Your task to perform on an android device: View the shopping cart on ebay.com. Image 0: 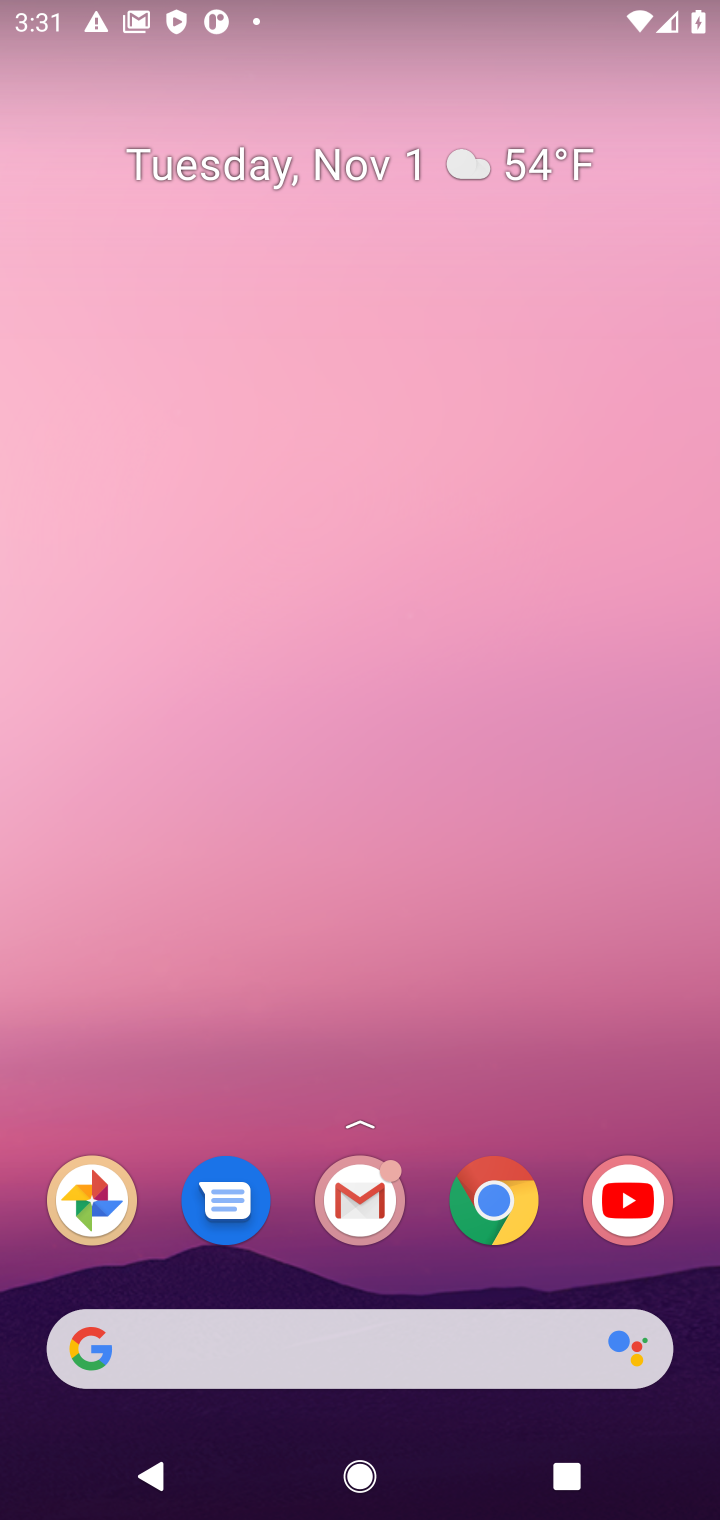
Step 0: click (92, 1349)
Your task to perform on an android device: View the shopping cart on ebay.com. Image 1: 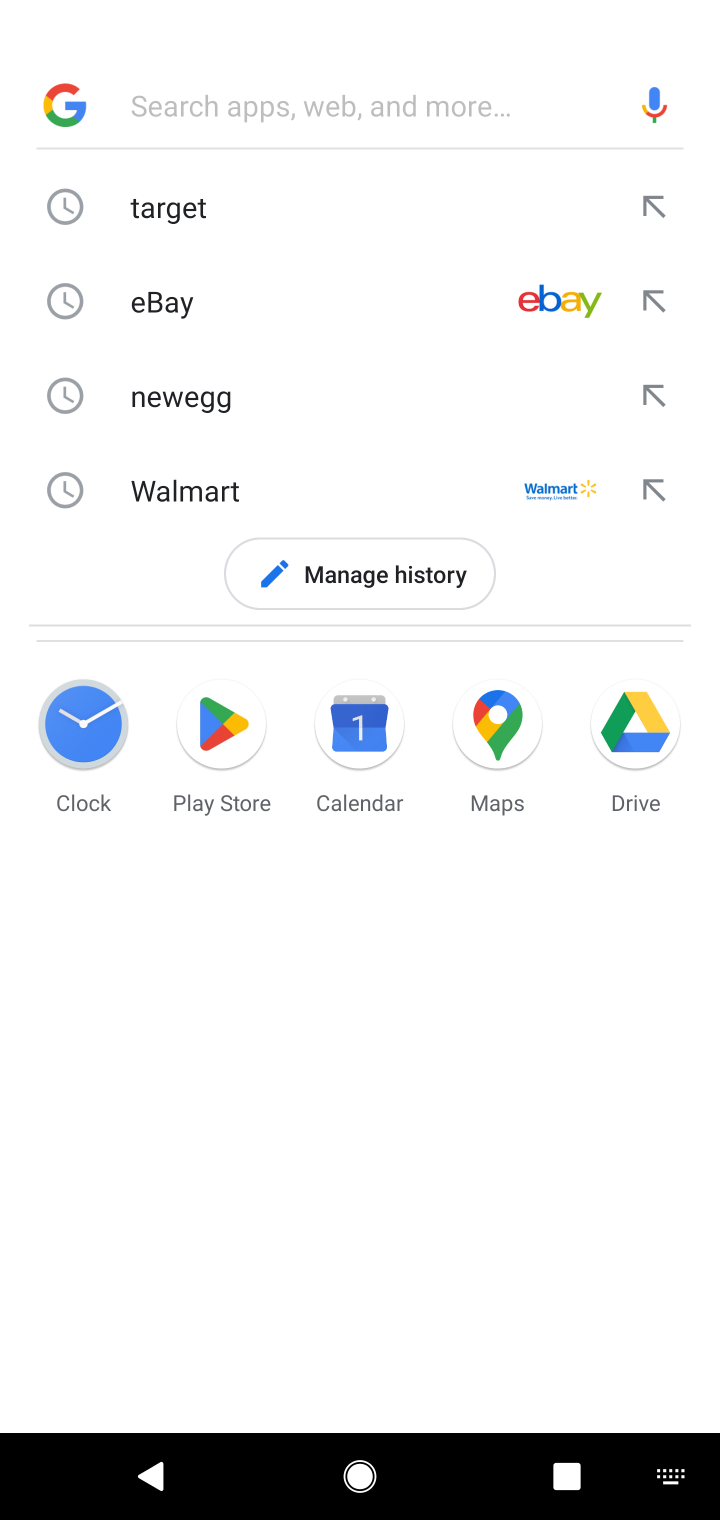
Step 1: click (298, 298)
Your task to perform on an android device: View the shopping cart on ebay.com. Image 2: 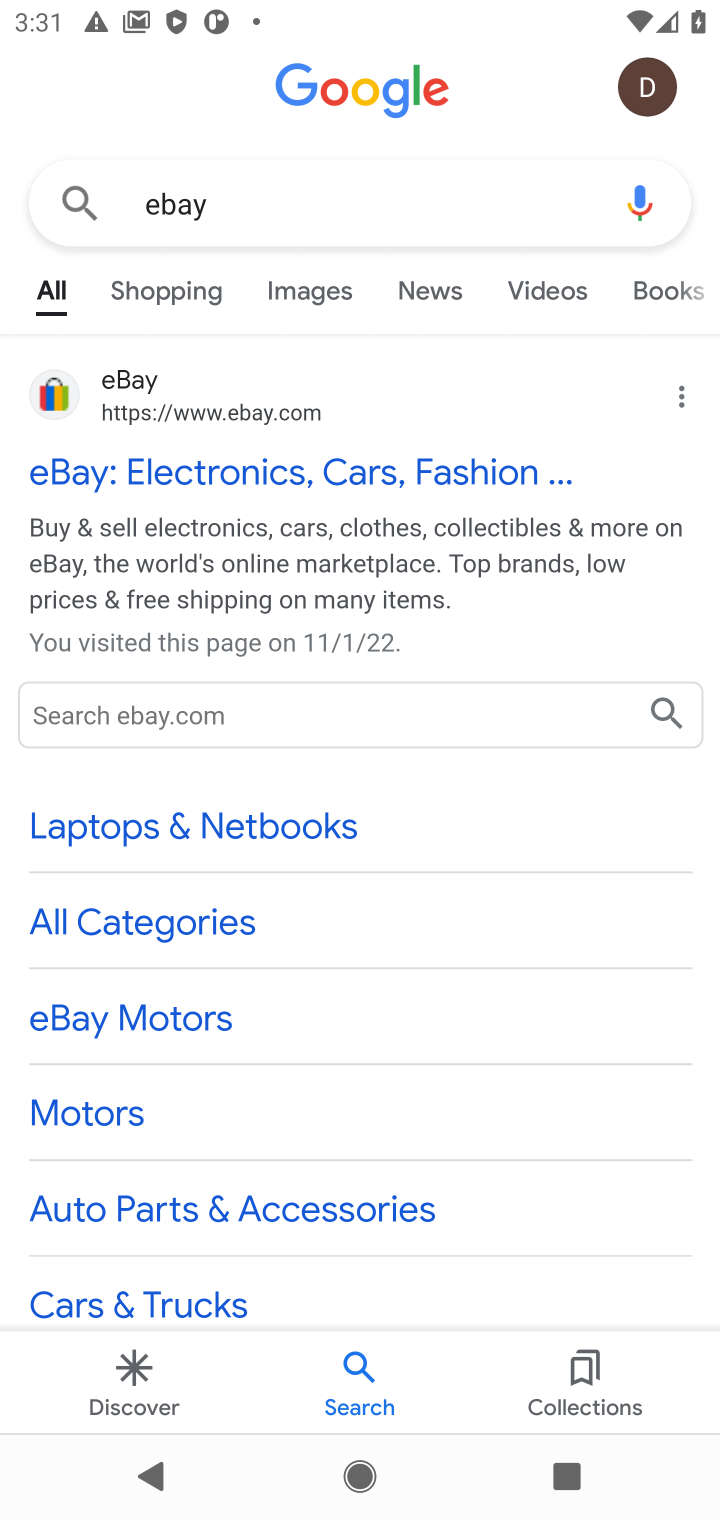
Step 2: click (271, 472)
Your task to perform on an android device: View the shopping cart on ebay.com. Image 3: 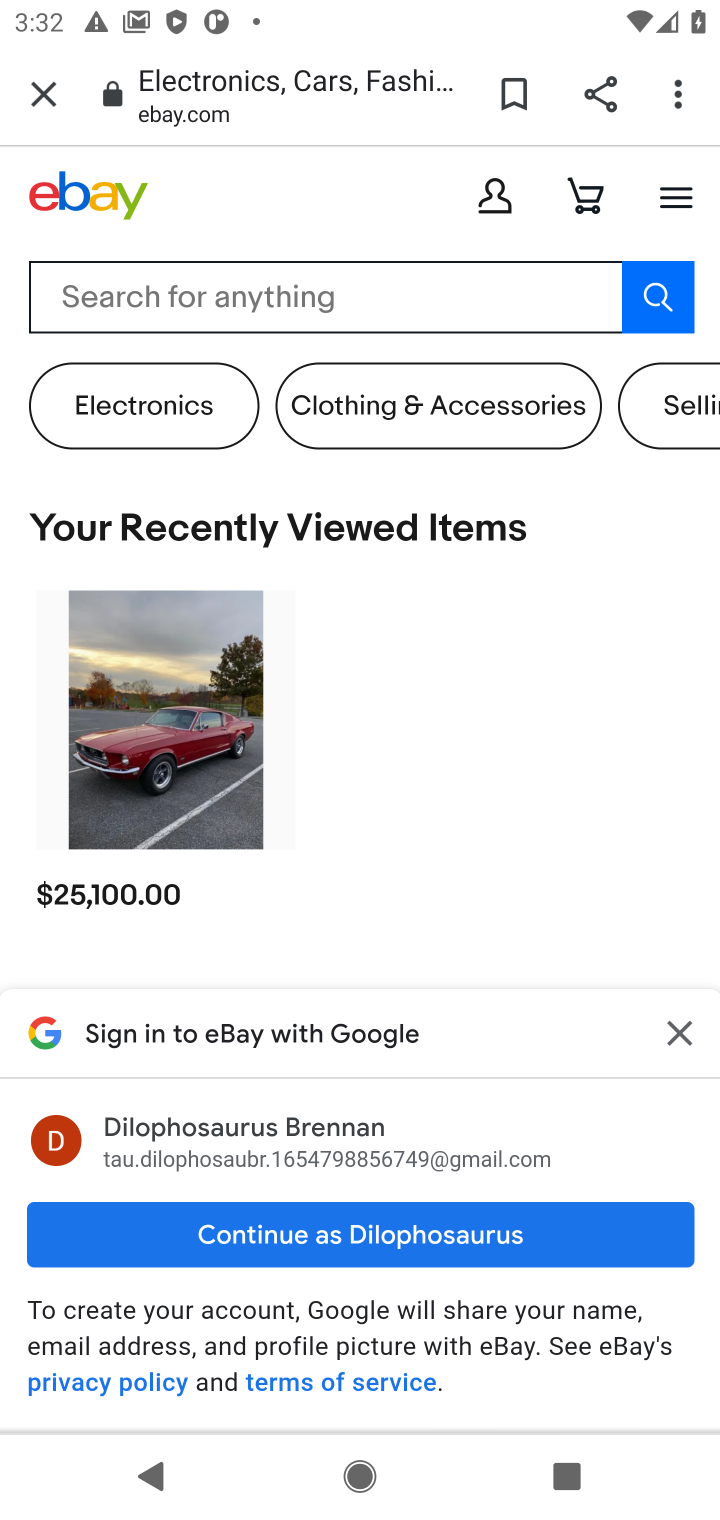
Step 3: task complete